Your task to perform on an android device: Search for Mexican restaurants on Maps Image 0: 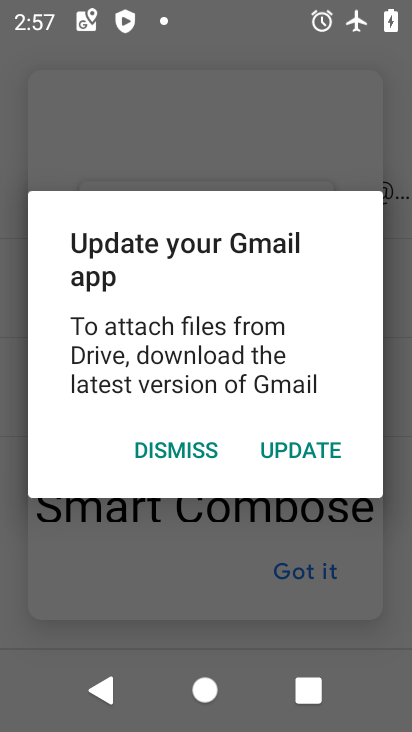
Step 0: press home button
Your task to perform on an android device: Search for Mexican restaurants on Maps Image 1: 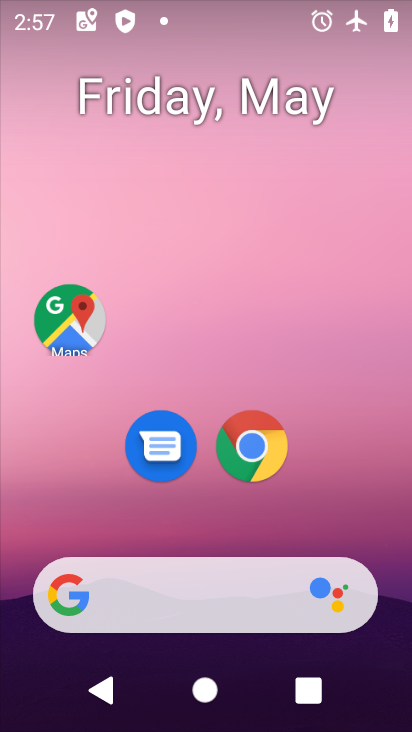
Step 1: click (82, 332)
Your task to perform on an android device: Search for Mexican restaurants on Maps Image 2: 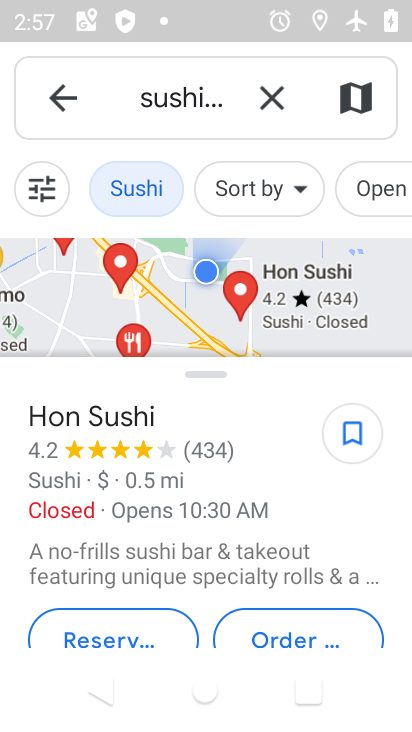
Step 2: click (279, 101)
Your task to perform on an android device: Search for Mexican restaurants on Maps Image 3: 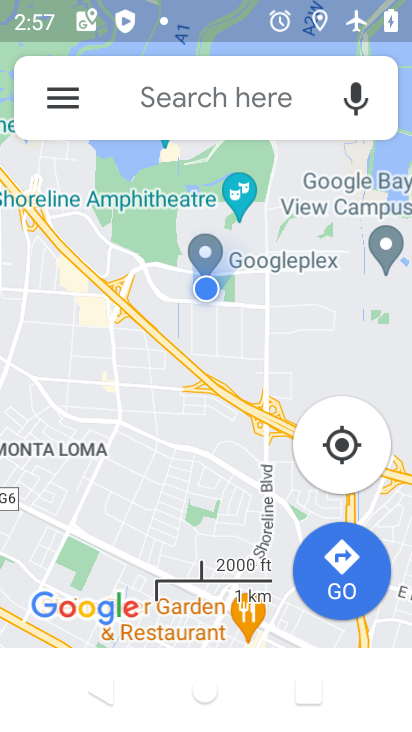
Step 3: click (177, 105)
Your task to perform on an android device: Search for Mexican restaurants on Maps Image 4: 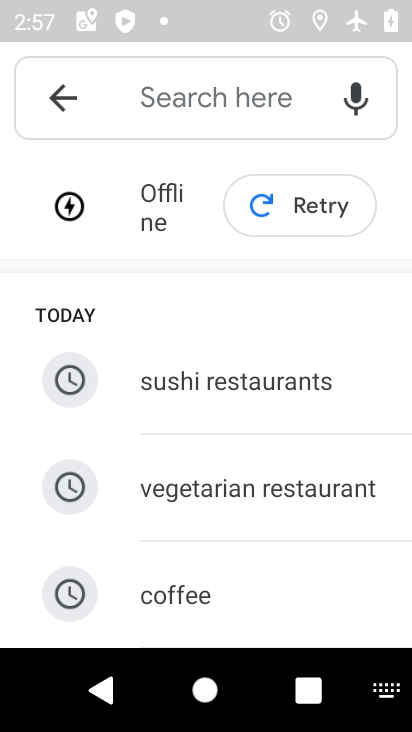
Step 4: type "Mexican restaurants"
Your task to perform on an android device: Search for Mexican restaurants on Maps Image 5: 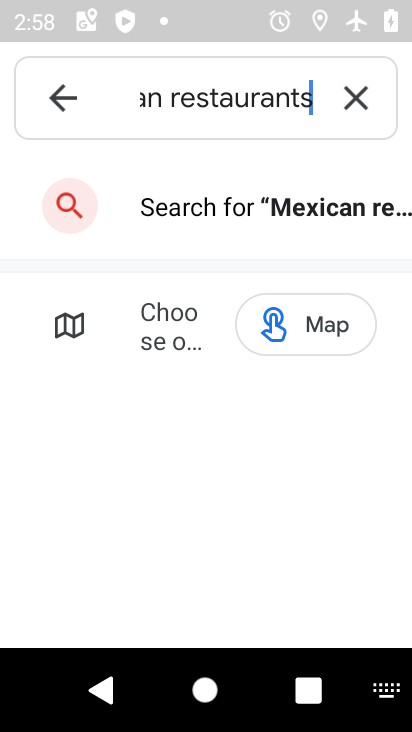
Step 5: task complete